Your task to perform on an android device: turn off javascript in the chrome app Image 0: 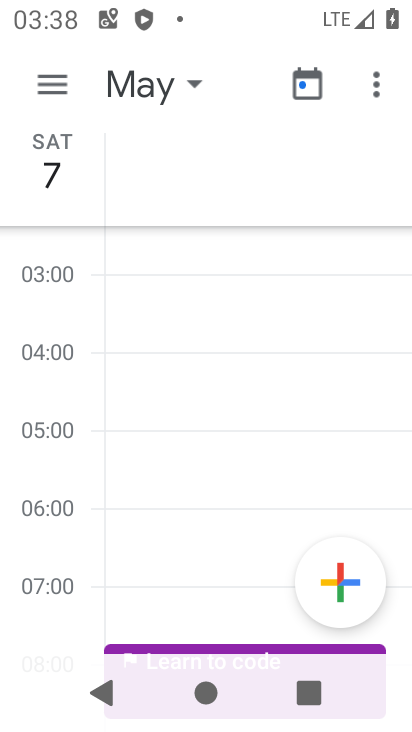
Step 0: press home button
Your task to perform on an android device: turn off javascript in the chrome app Image 1: 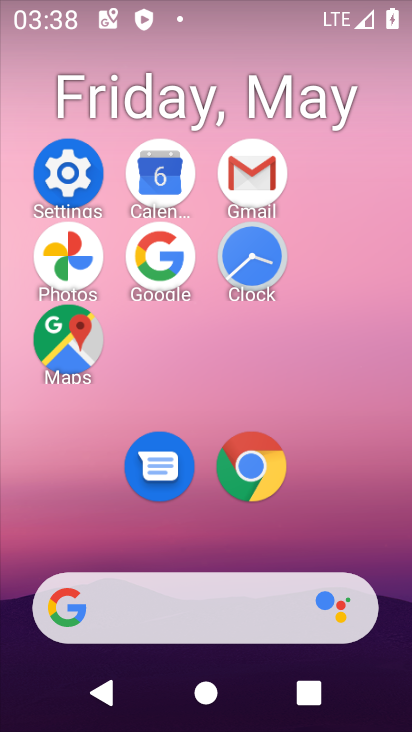
Step 1: click (258, 478)
Your task to perform on an android device: turn off javascript in the chrome app Image 2: 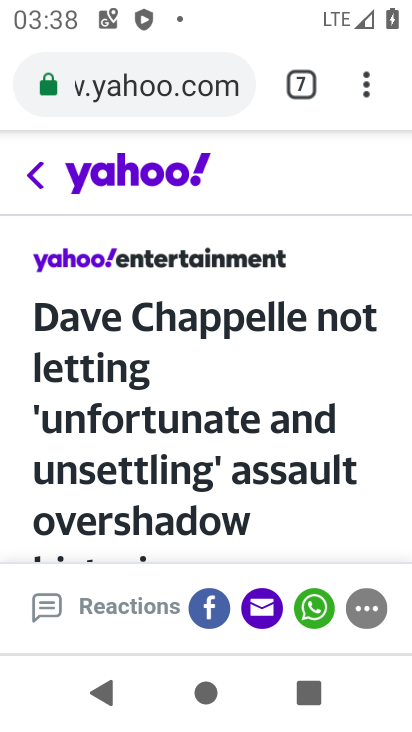
Step 2: click (367, 89)
Your task to perform on an android device: turn off javascript in the chrome app Image 3: 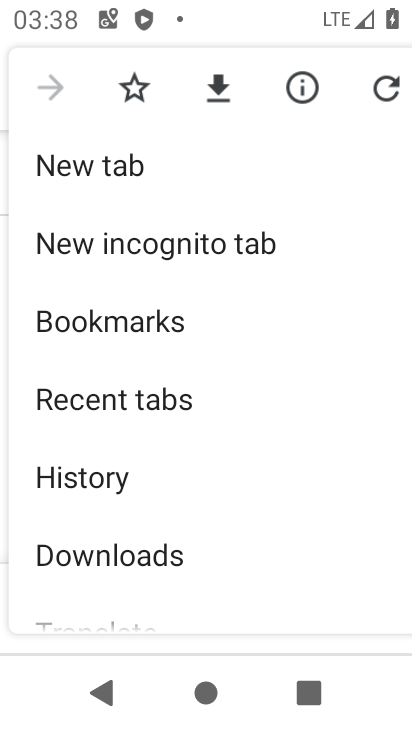
Step 3: drag from (240, 526) to (227, 165)
Your task to perform on an android device: turn off javascript in the chrome app Image 4: 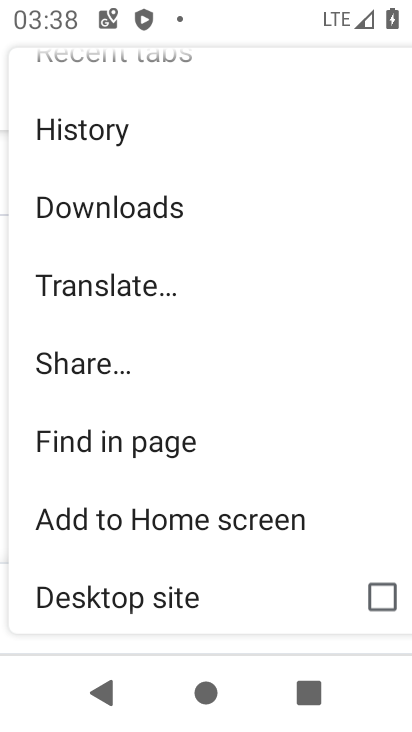
Step 4: drag from (201, 512) to (232, 190)
Your task to perform on an android device: turn off javascript in the chrome app Image 5: 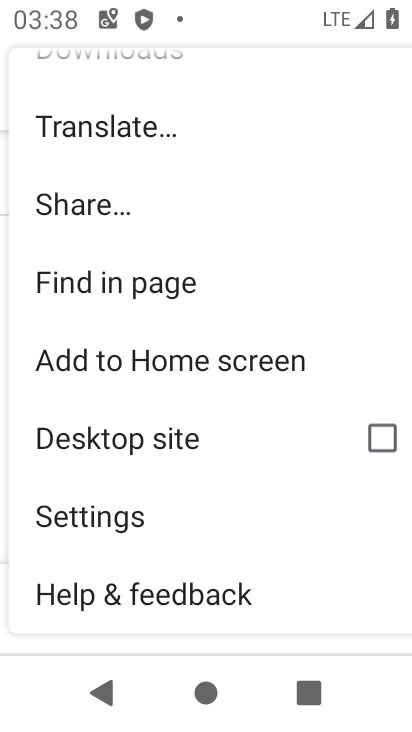
Step 5: click (176, 520)
Your task to perform on an android device: turn off javascript in the chrome app Image 6: 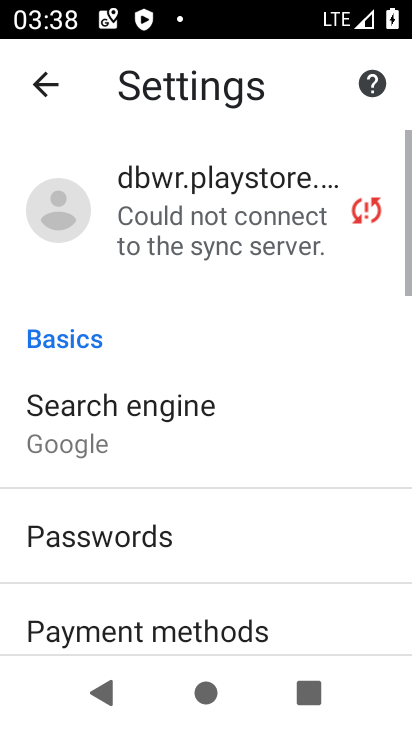
Step 6: drag from (176, 520) to (185, 169)
Your task to perform on an android device: turn off javascript in the chrome app Image 7: 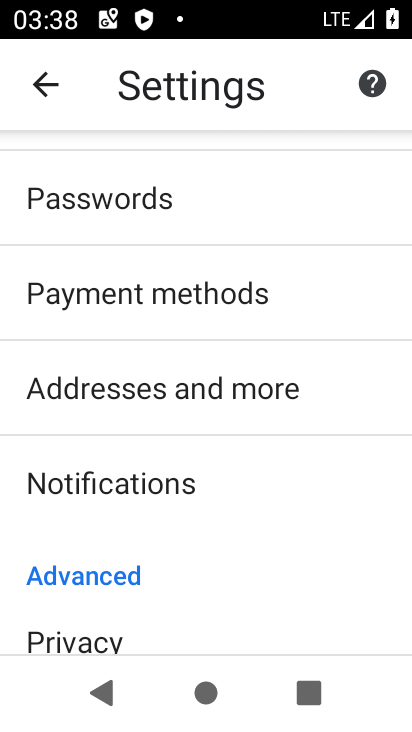
Step 7: drag from (181, 541) to (208, 227)
Your task to perform on an android device: turn off javascript in the chrome app Image 8: 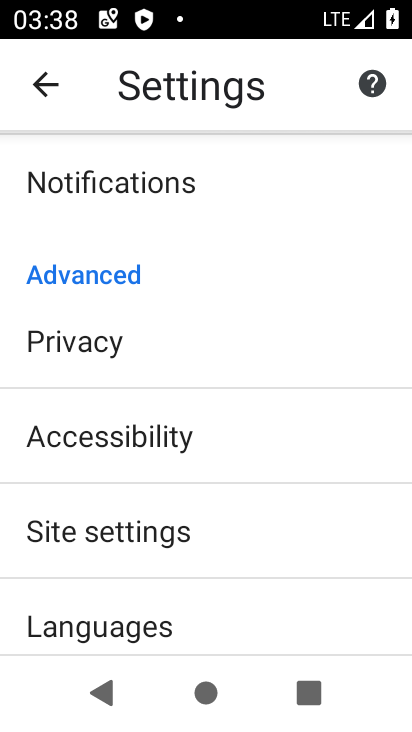
Step 8: click (173, 530)
Your task to perform on an android device: turn off javascript in the chrome app Image 9: 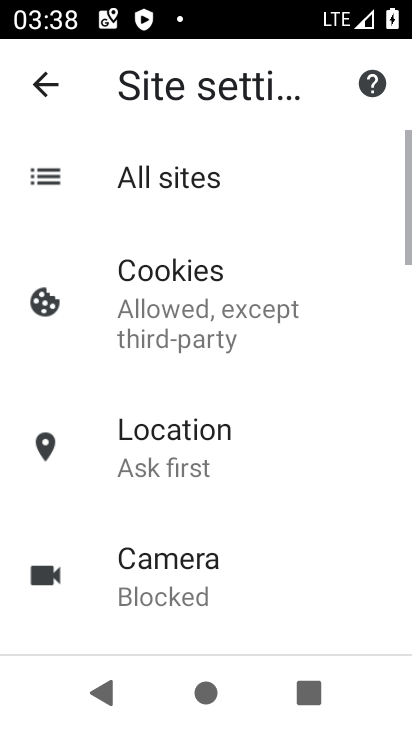
Step 9: drag from (173, 530) to (209, 193)
Your task to perform on an android device: turn off javascript in the chrome app Image 10: 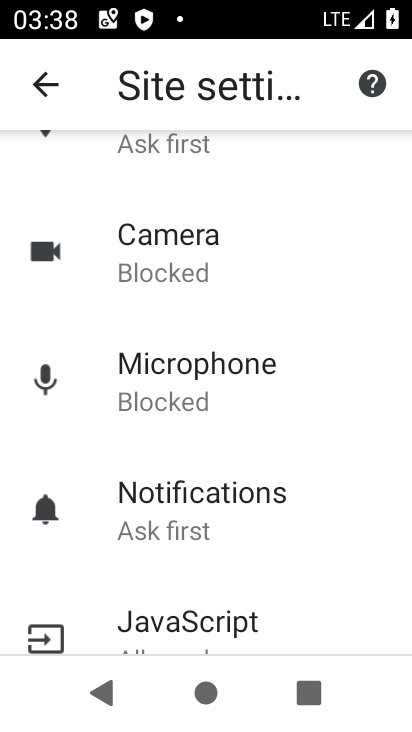
Step 10: drag from (208, 563) to (233, 245)
Your task to perform on an android device: turn off javascript in the chrome app Image 11: 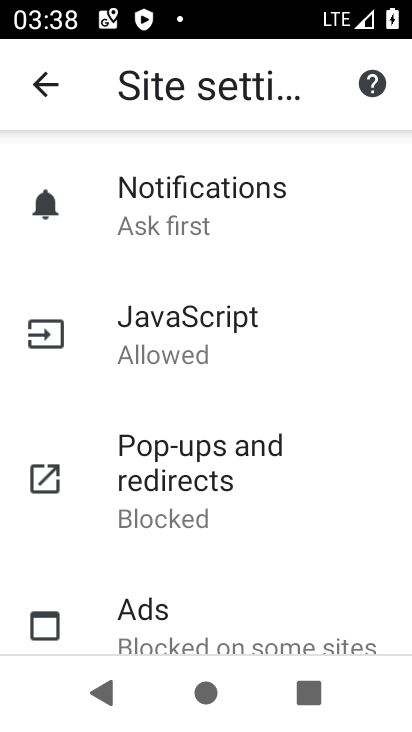
Step 11: click (220, 318)
Your task to perform on an android device: turn off javascript in the chrome app Image 12: 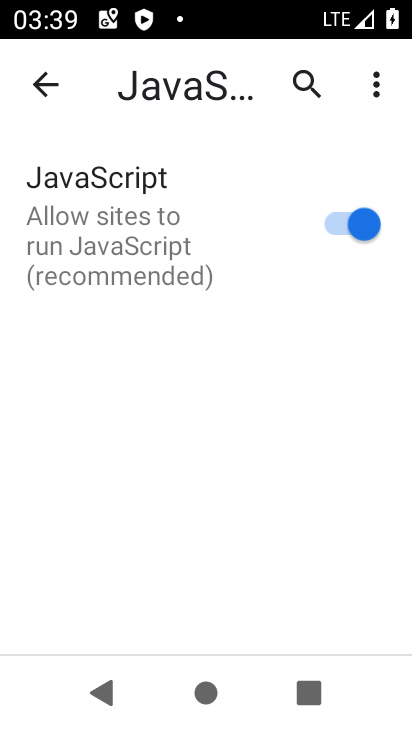
Step 12: click (375, 232)
Your task to perform on an android device: turn off javascript in the chrome app Image 13: 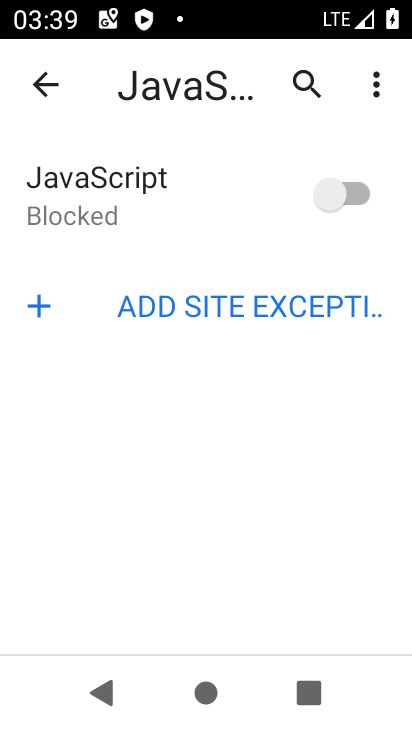
Step 13: task complete